Your task to perform on an android device: allow cookies in the chrome app Image 0: 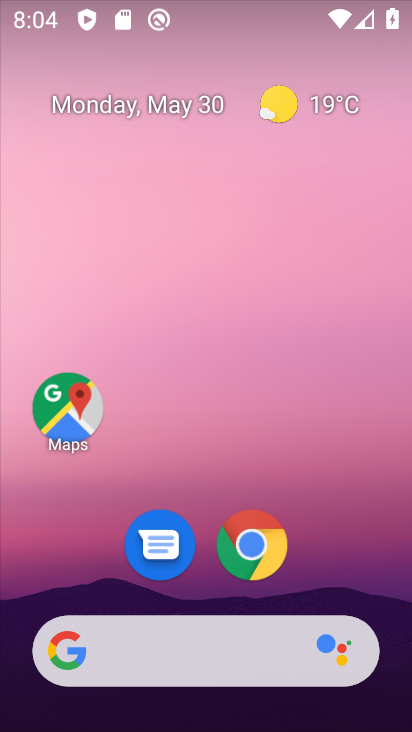
Step 0: drag from (303, 494) to (308, 113)
Your task to perform on an android device: allow cookies in the chrome app Image 1: 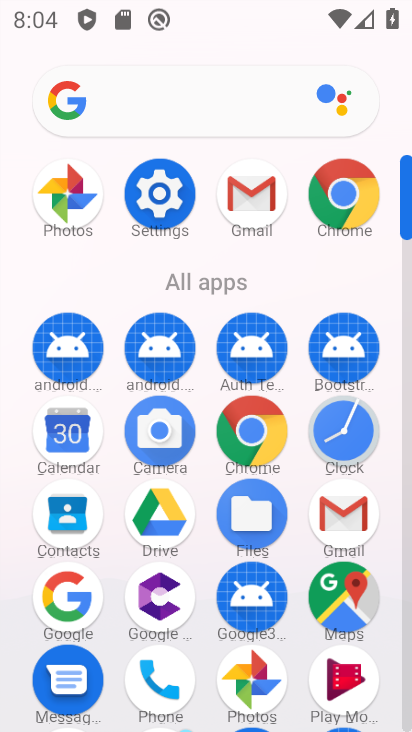
Step 1: click (342, 194)
Your task to perform on an android device: allow cookies in the chrome app Image 2: 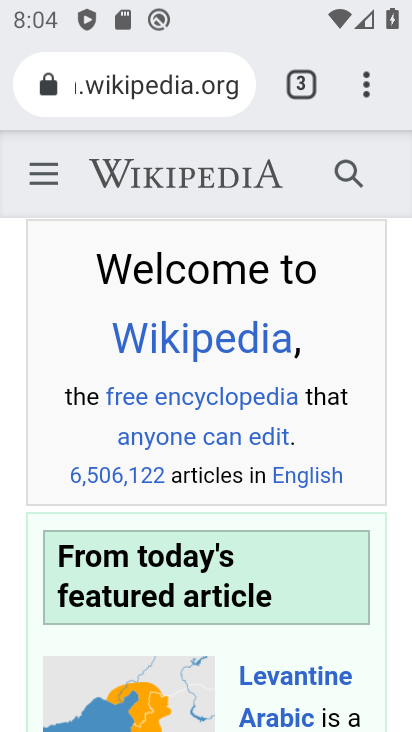
Step 2: click (378, 76)
Your task to perform on an android device: allow cookies in the chrome app Image 3: 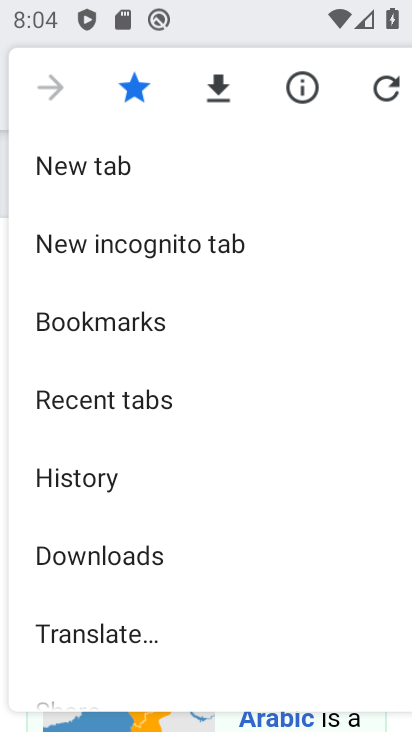
Step 3: drag from (188, 550) to (250, 202)
Your task to perform on an android device: allow cookies in the chrome app Image 4: 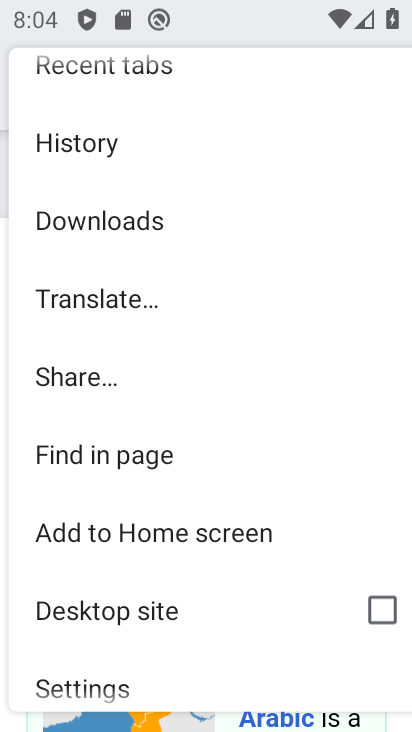
Step 4: drag from (113, 647) to (187, 266)
Your task to perform on an android device: allow cookies in the chrome app Image 5: 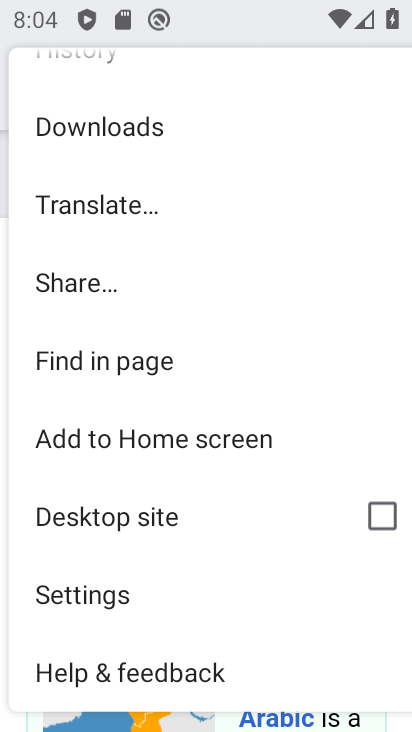
Step 5: click (99, 596)
Your task to perform on an android device: allow cookies in the chrome app Image 6: 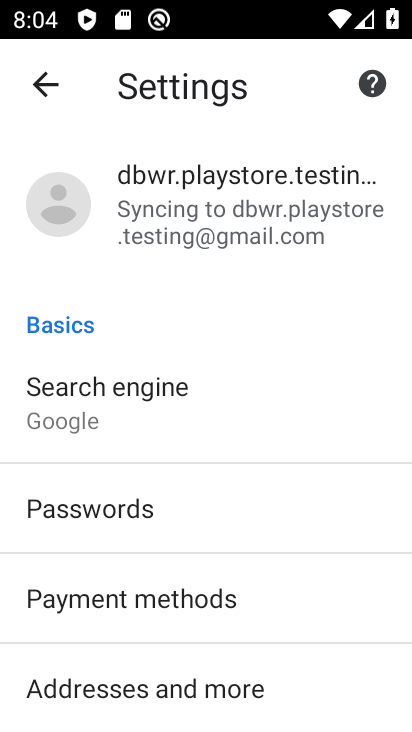
Step 6: drag from (273, 574) to (267, 295)
Your task to perform on an android device: allow cookies in the chrome app Image 7: 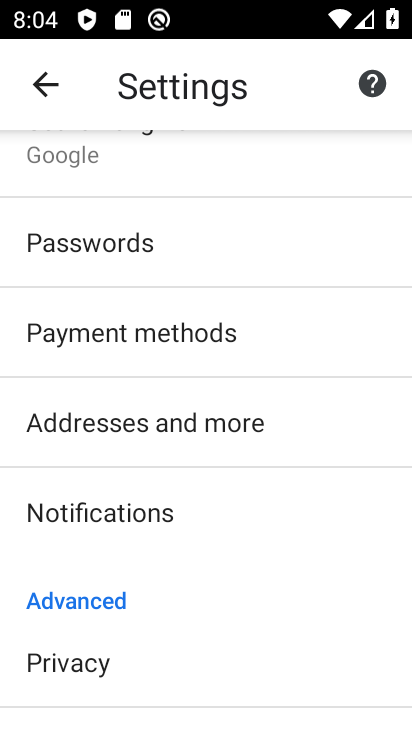
Step 7: drag from (206, 672) to (200, 391)
Your task to perform on an android device: allow cookies in the chrome app Image 8: 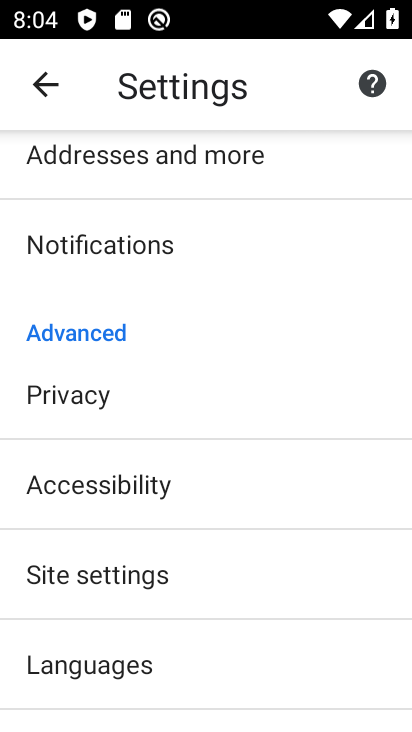
Step 8: click (123, 586)
Your task to perform on an android device: allow cookies in the chrome app Image 9: 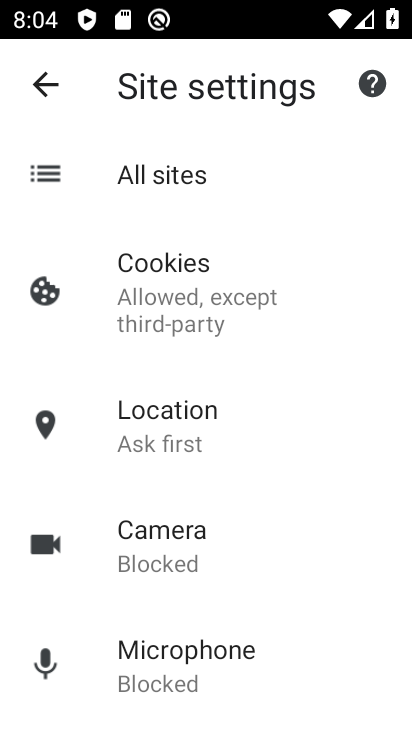
Step 9: click (163, 302)
Your task to perform on an android device: allow cookies in the chrome app Image 10: 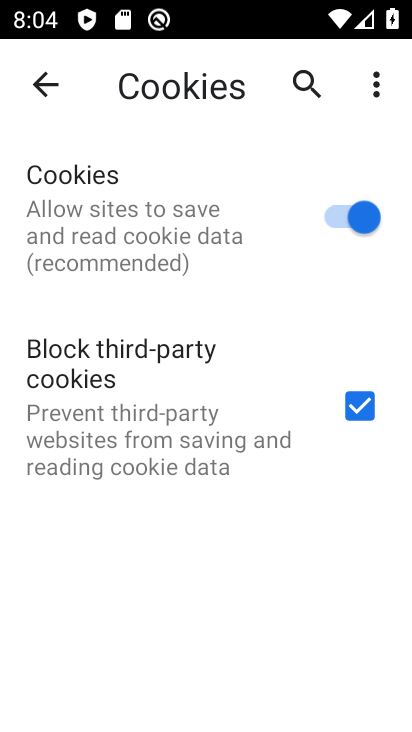
Step 10: click (355, 413)
Your task to perform on an android device: allow cookies in the chrome app Image 11: 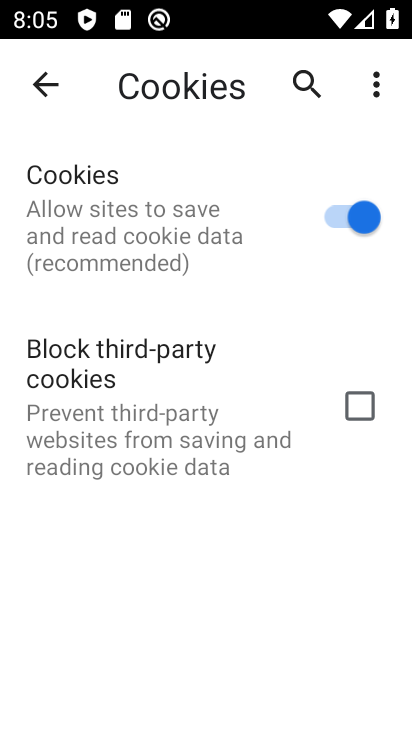
Step 11: task complete